Your task to perform on an android device: turn off notifications settings in the gmail app Image 0: 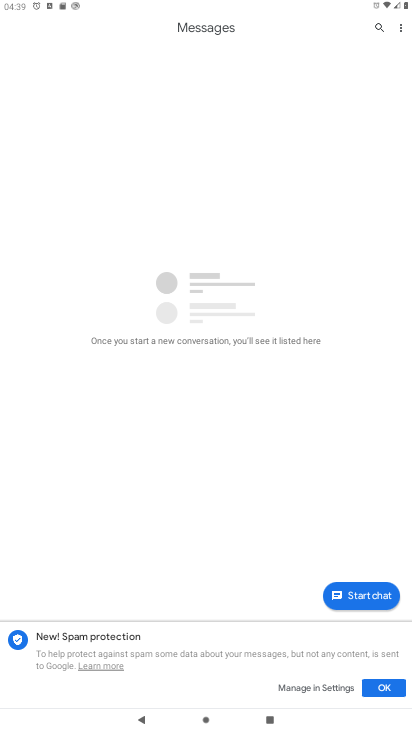
Step 0: press home button
Your task to perform on an android device: turn off notifications settings in the gmail app Image 1: 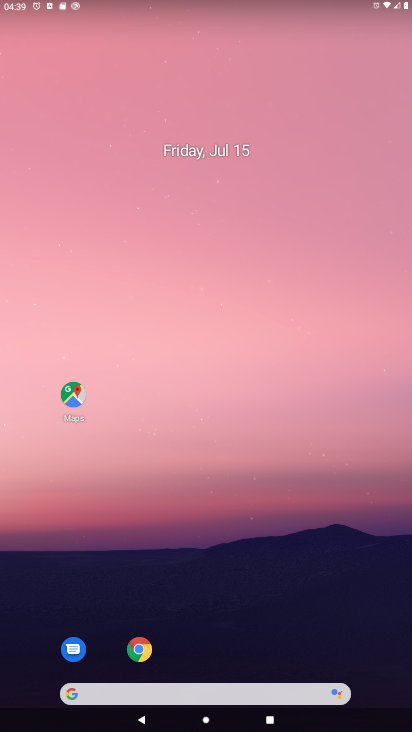
Step 1: drag from (375, 659) to (360, 72)
Your task to perform on an android device: turn off notifications settings in the gmail app Image 2: 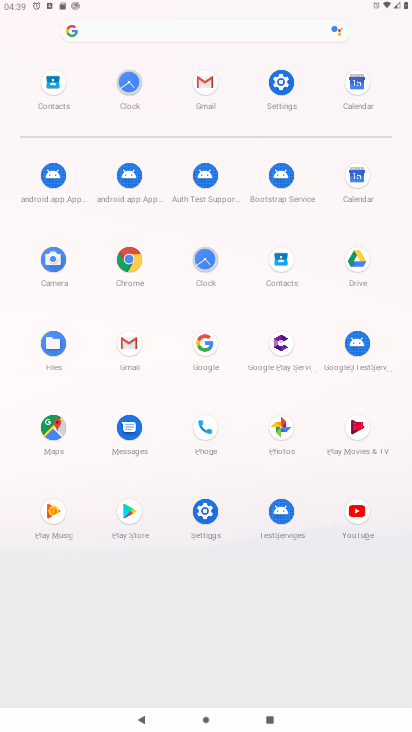
Step 2: click (128, 345)
Your task to perform on an android device: turn off notifications settings in the gmail app Image 3: 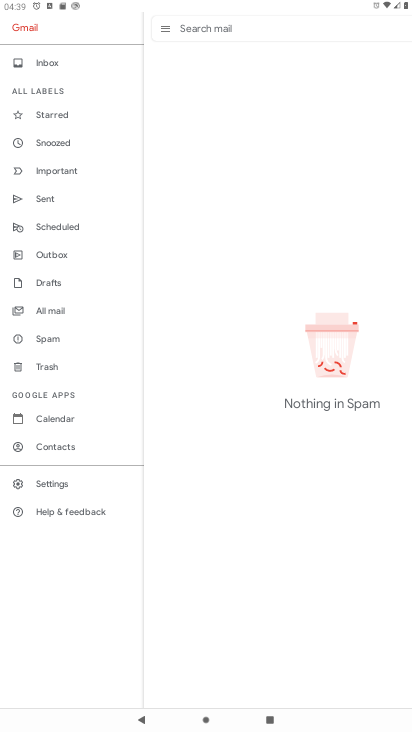
Step 3: click (55, 483)
Your task to perform on an android device: turn off notifications settings in the gmail app Image 4: 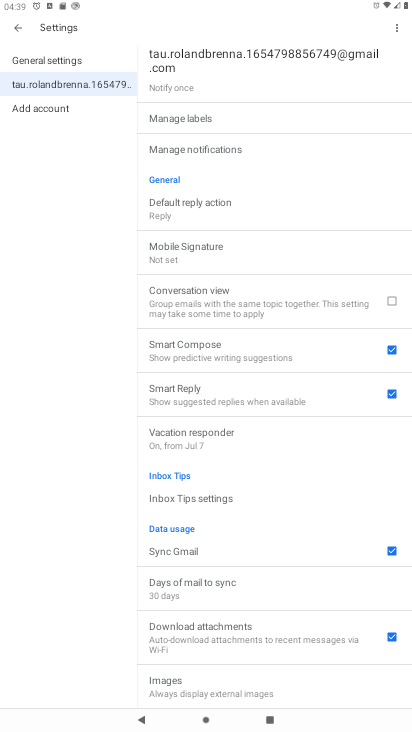
Step 4: drag from (198, 145) to (189, 344)
Your task to perform on an android device: turn off notifications settings in the gmail app Image 5: 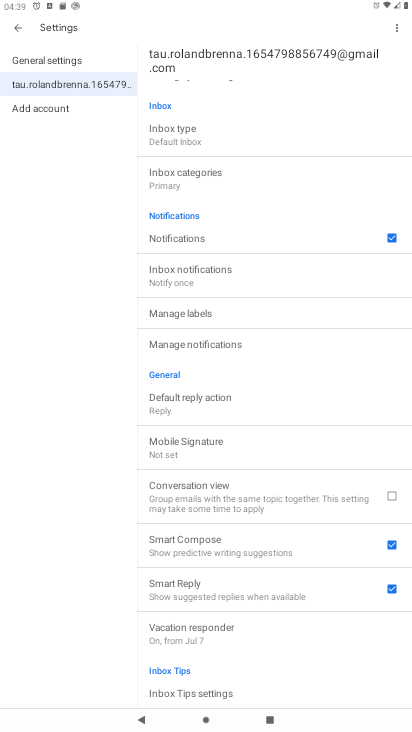
Step 5: click (187, 344)
Your task to perform on an android device: turn off notifications settings in the gmail app Image 6: 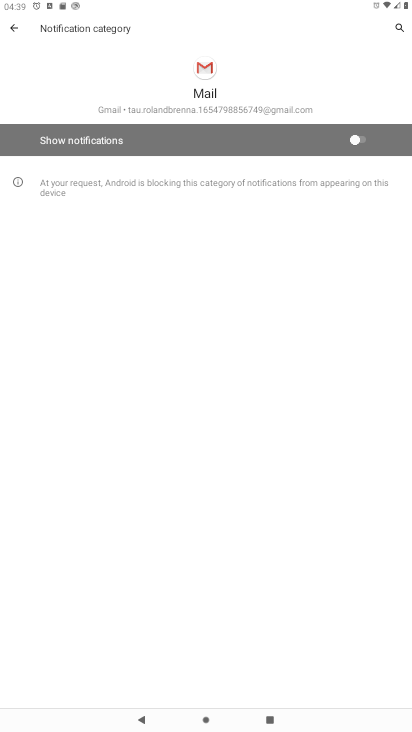
Step 6: task complete